Your task to perform on an android device: uninstall "Flipkart Online Shopping App" Image 0: 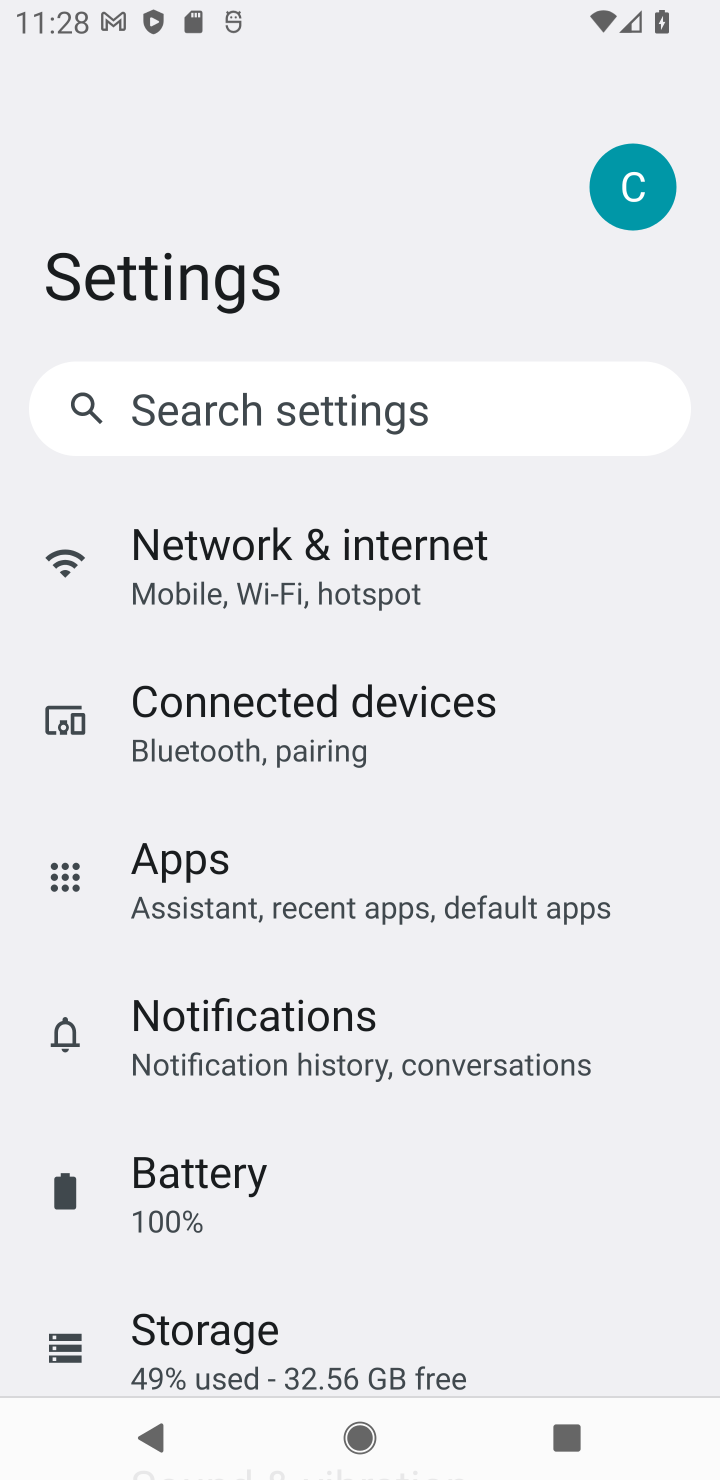
Step 0: press home button
Your task to perform on an android device: uninstall "Flipkart Online Shopping App" Image 1: 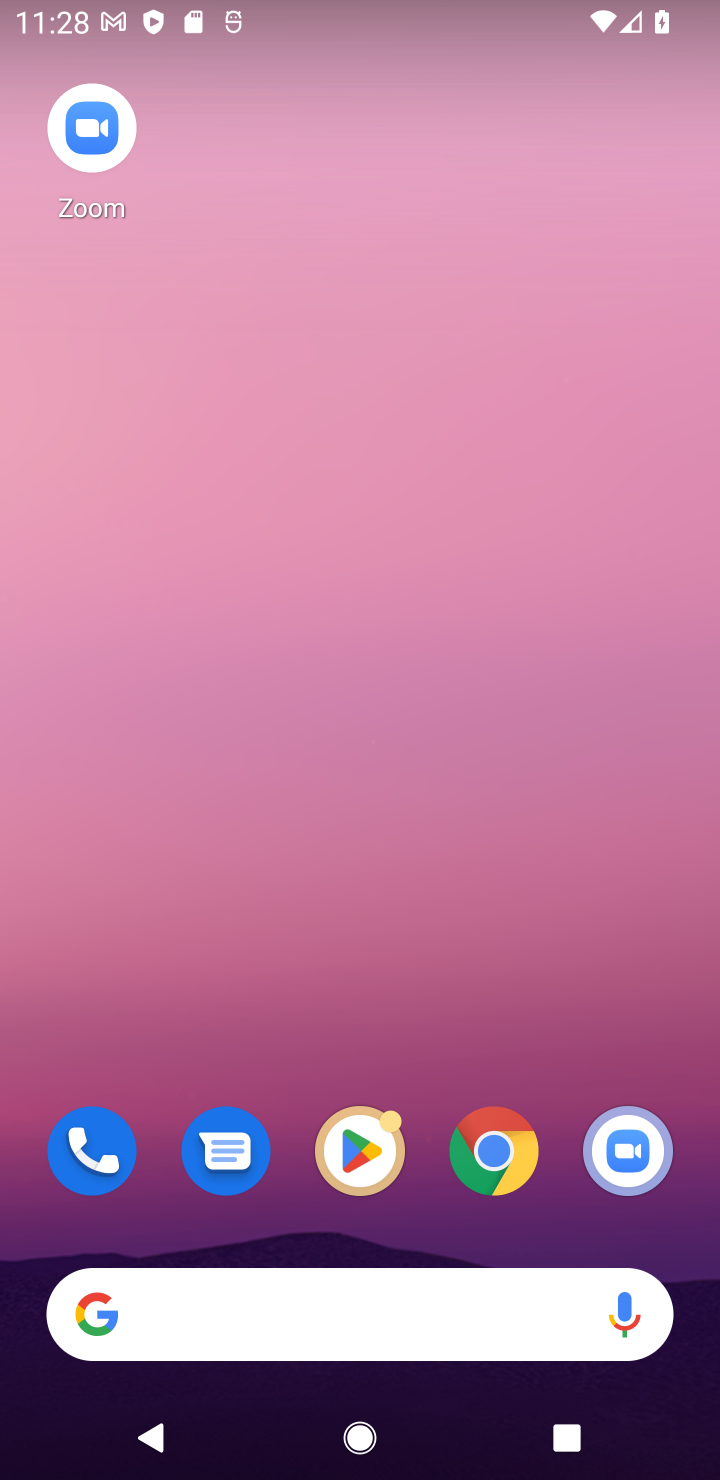
Step 1: drag from (258, 1318) to (342, 372)
Your task to perform on an android device: uninstall "Flipkart Online Shopping App" Image 2: 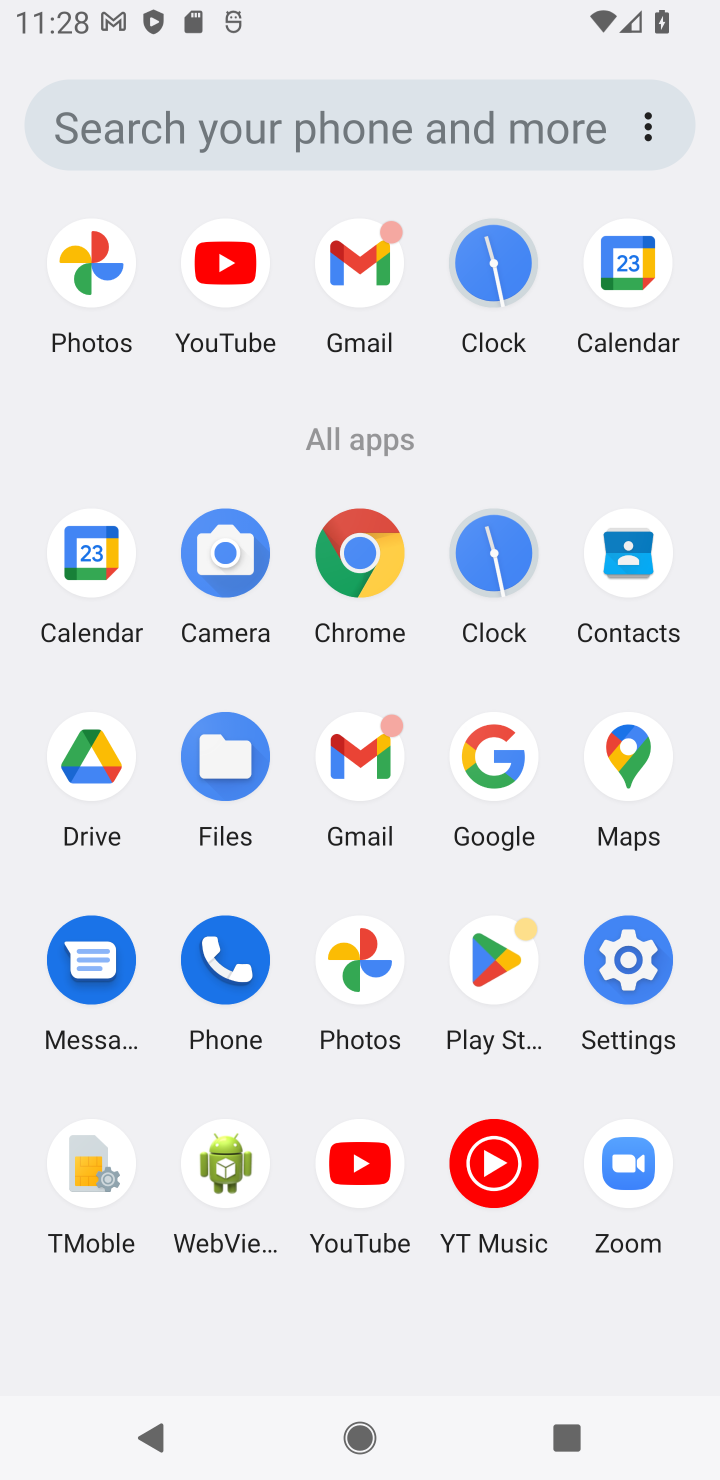
Step 2: click (291, 154)
Your task to perform on an android device: uninstall "Flipkart Online Shopping App" Image 3: 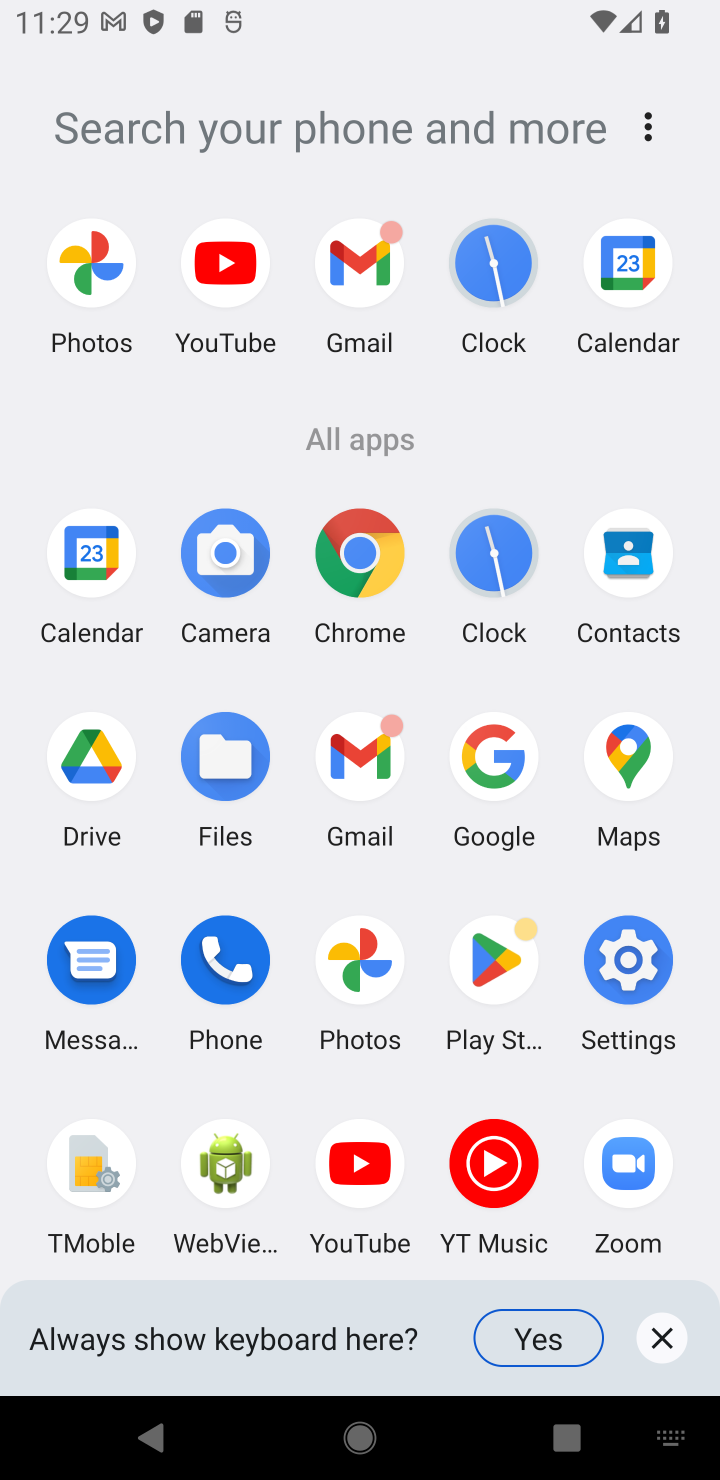
Step 3: click (194, 132)
Your task to perform on an android device: uninstall "Flipkart Online Shopping App" Image 4: 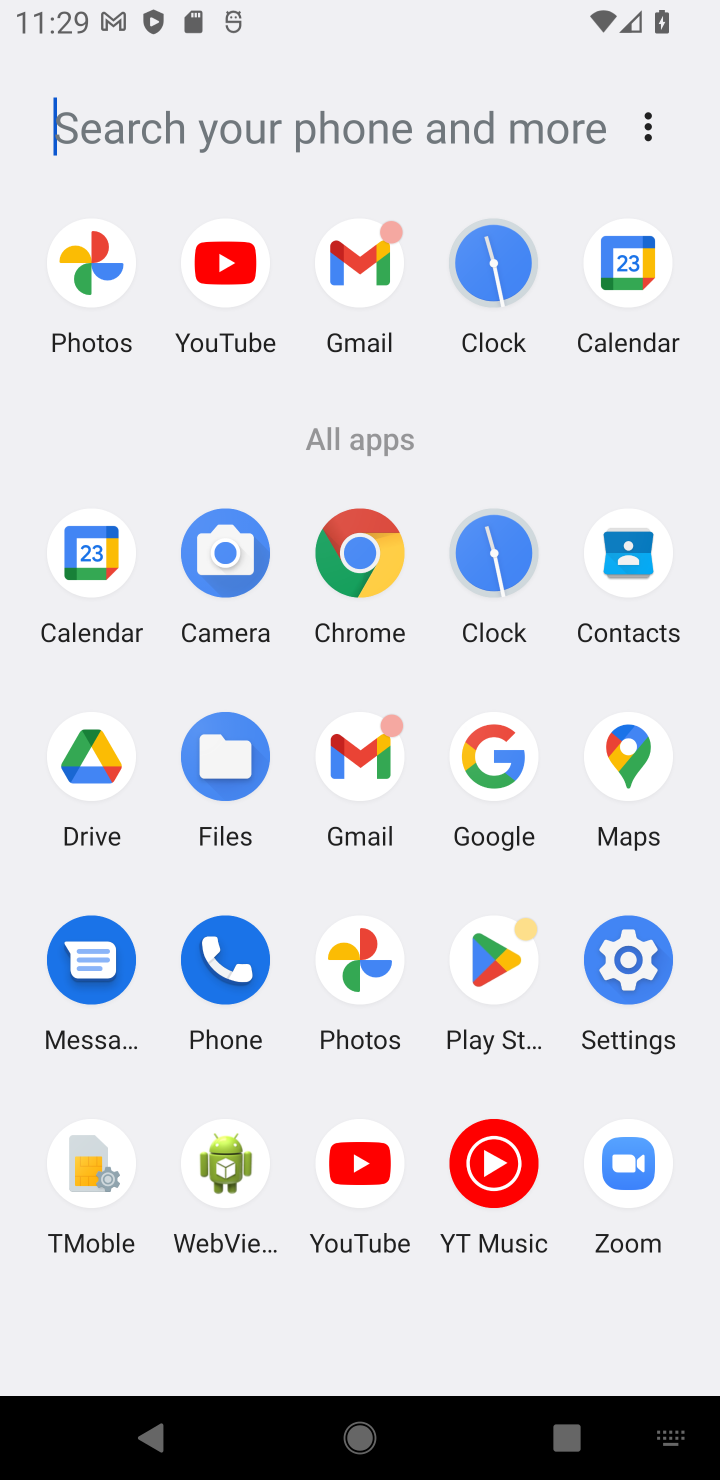
Step 4: type "Flipkart Online Shopping App"
Your task to perform on an android device: uninstall "Flipkart Online Shopping App" Image 5: 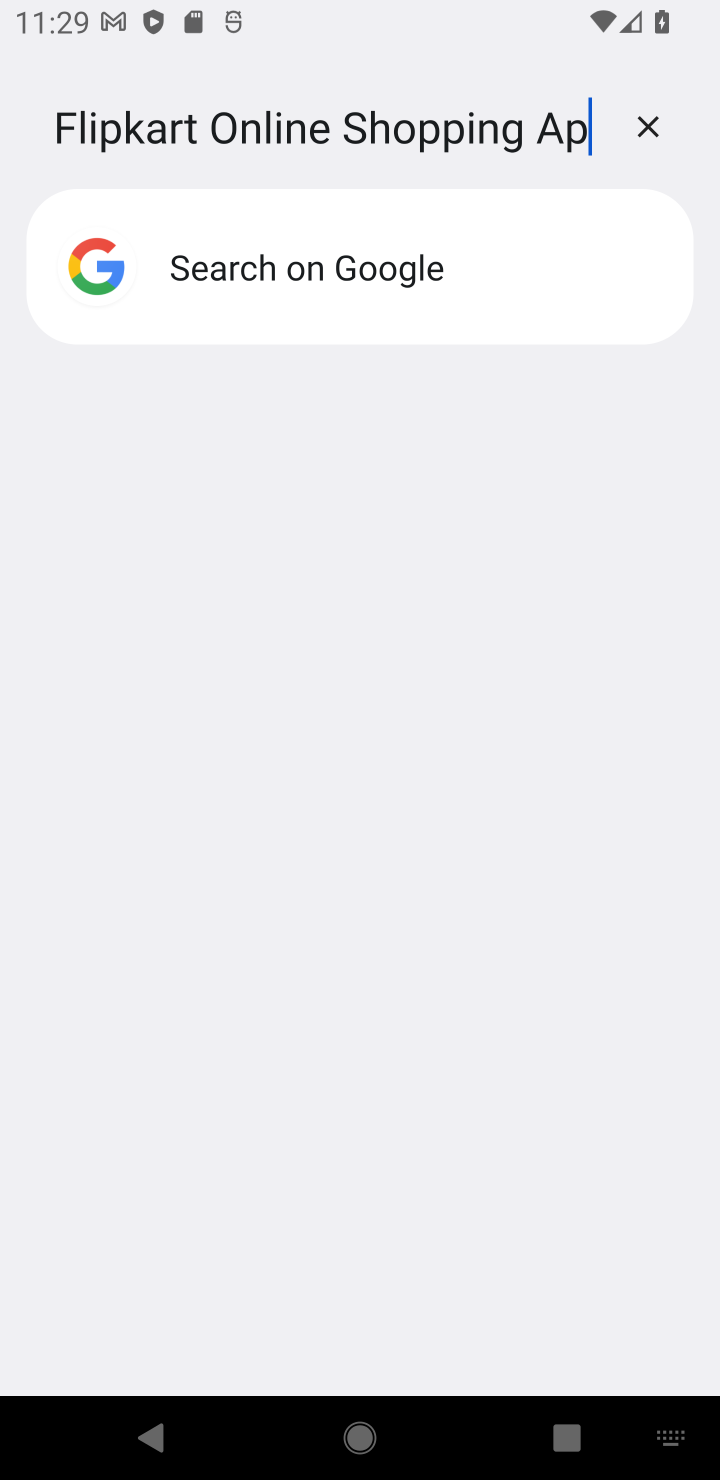
Step 5: type ""
Your task to perform on an android device: uninstall "Flipkart Online Shopping App" Image 6: 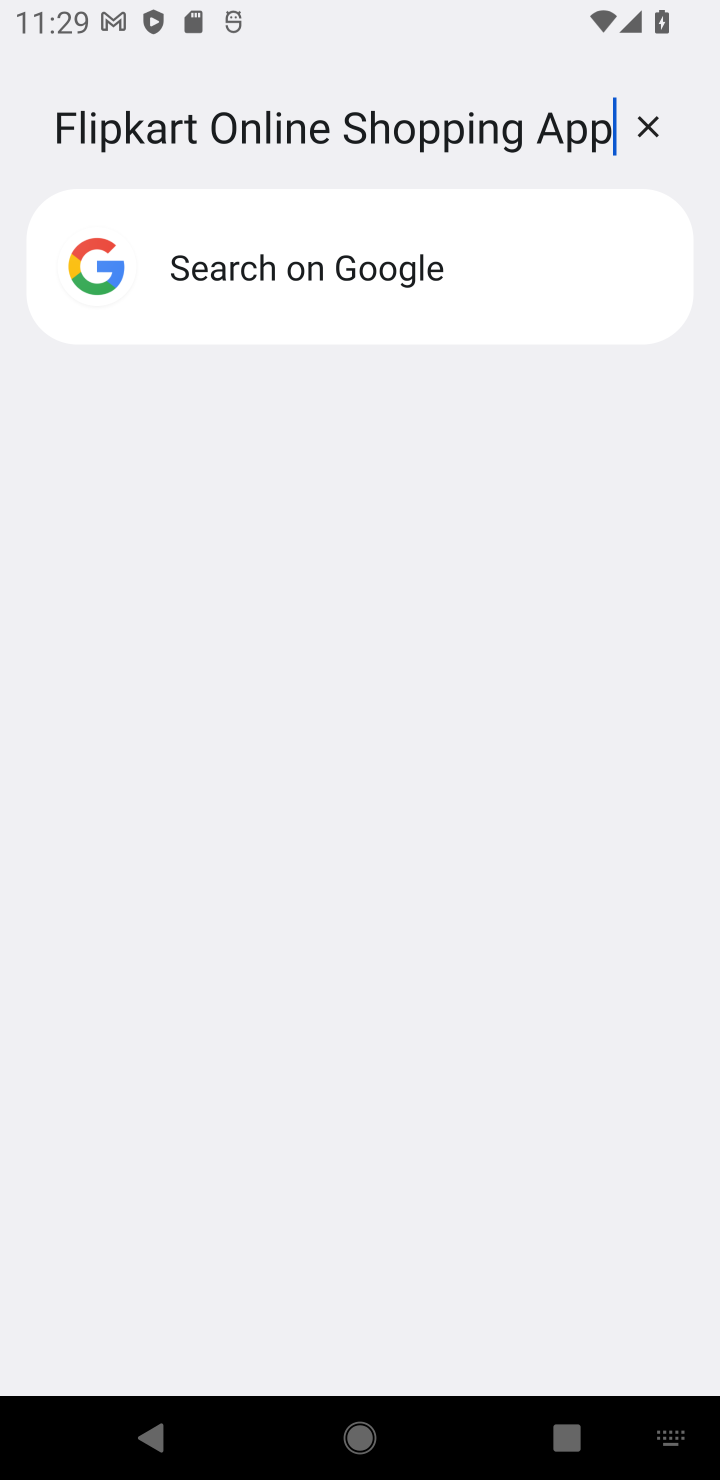
Step 6: click (333, 259)
Your task to perform on an android device: uninstall "Flipkart Online Shopping App" Image 7: 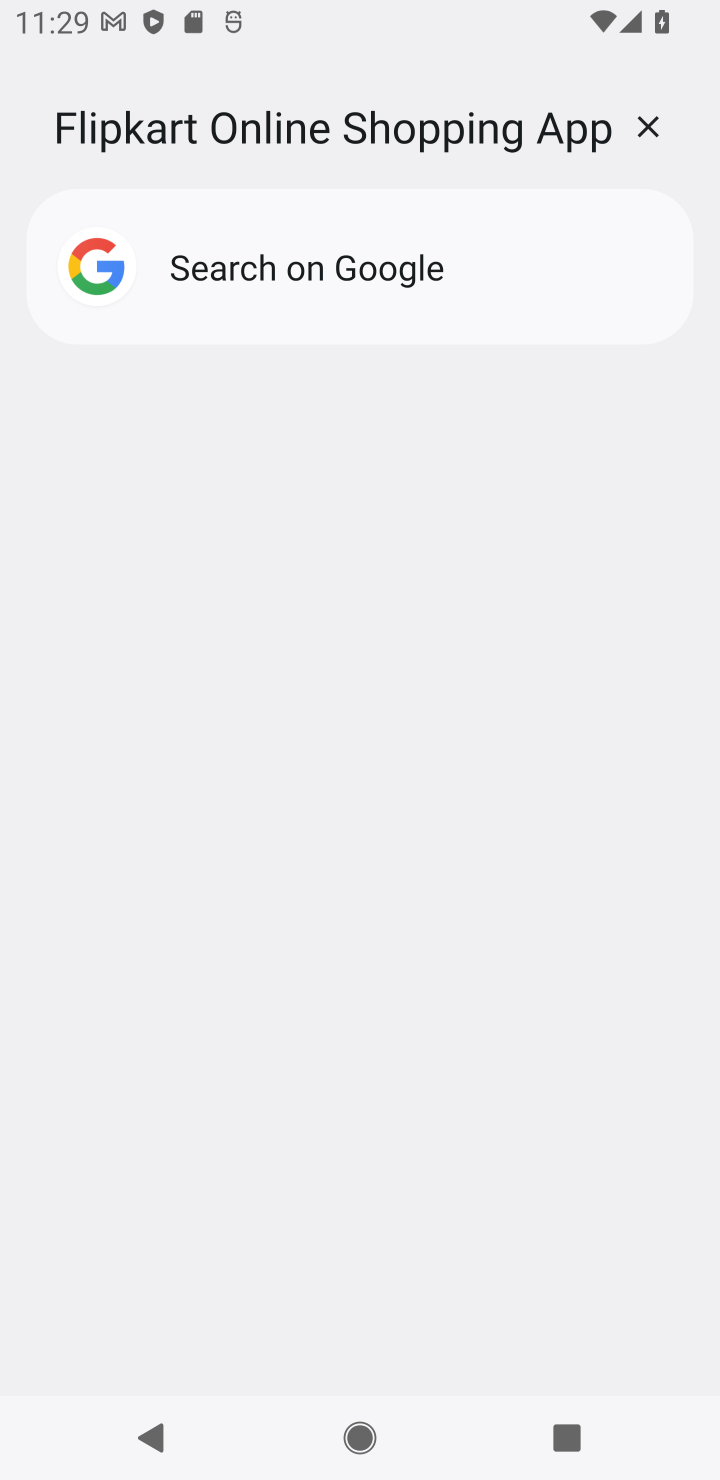
Step 7: task complete